Your task to perform on an android device: see tabs open on other devices in the chrome app Image 0: 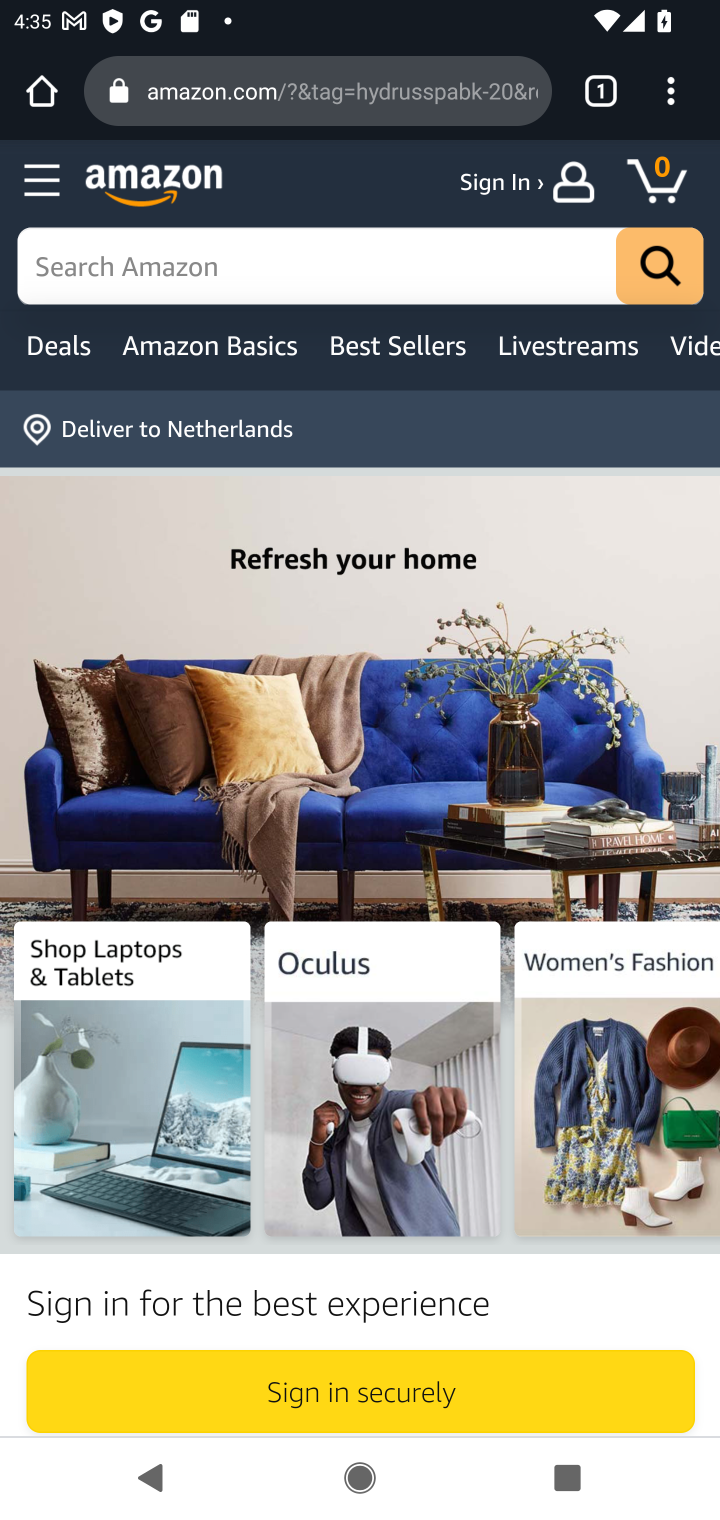
Step 0: click (659, 117)
Your task to perform on an android device: see tabs open on other devices in the chrome app Image 1: 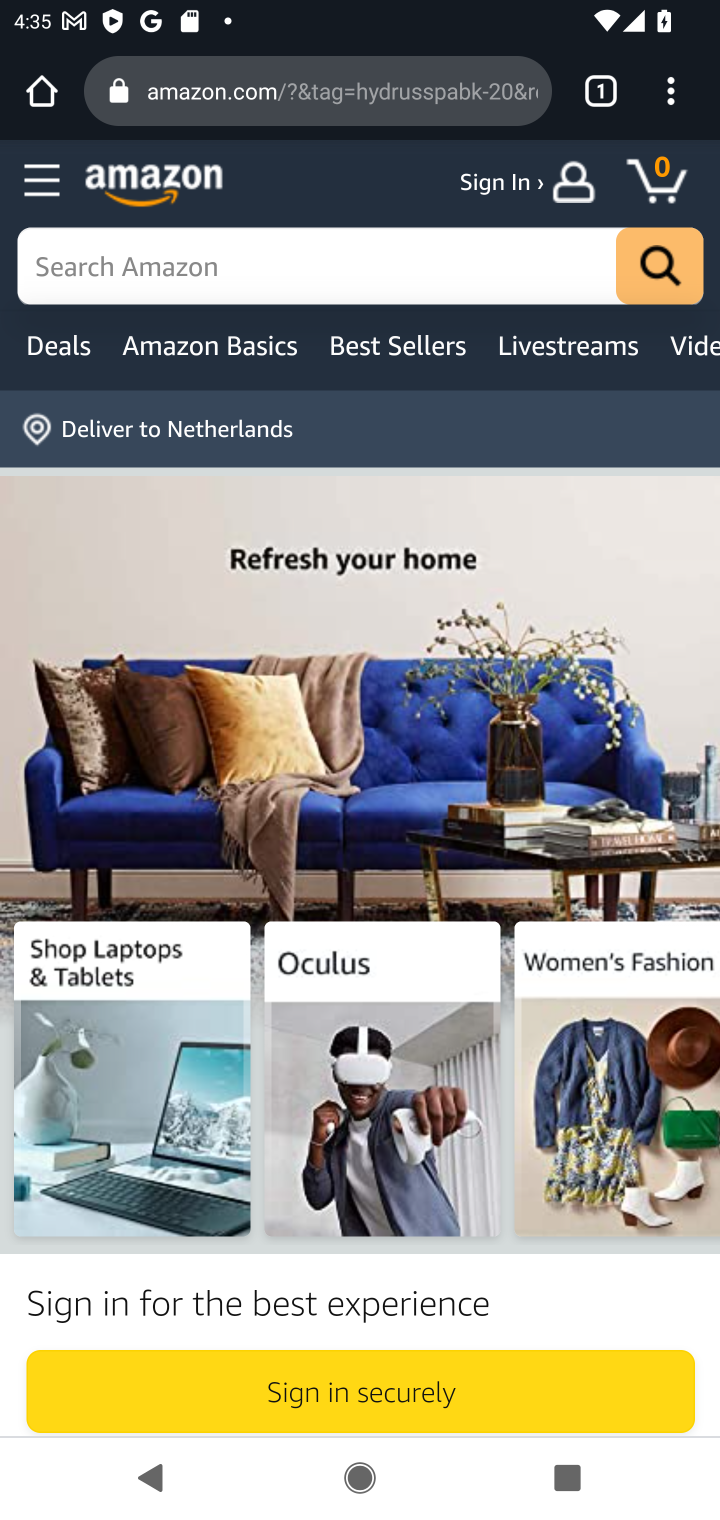
Step 1: task complete